Your task to perform on an android device: open app "Google Play Games" Image 0: 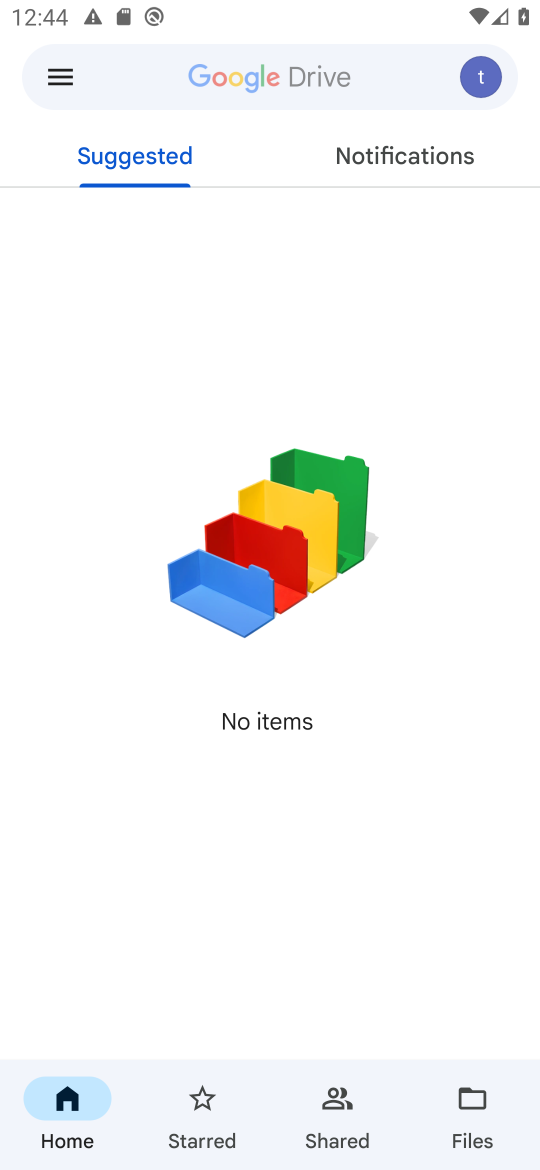
Step 0: drag from (300, 1049) to (496, 596)
Your task to perform on an android device: open app "Google Play Games" Image 1: 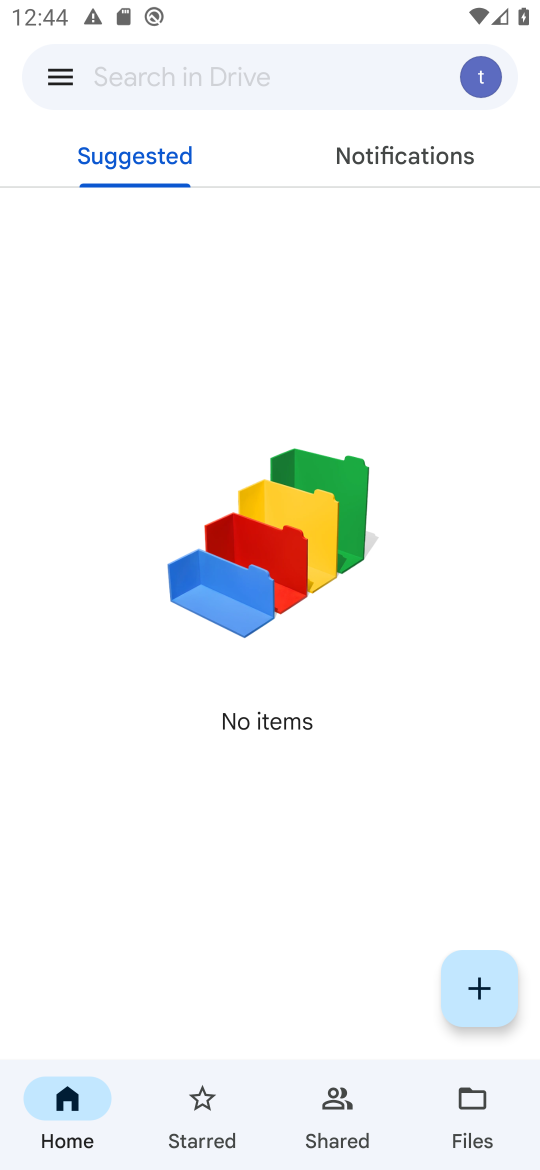
Step 1: press home button
Your task to perform on an android device: open app "Google Play Games" Image 2: 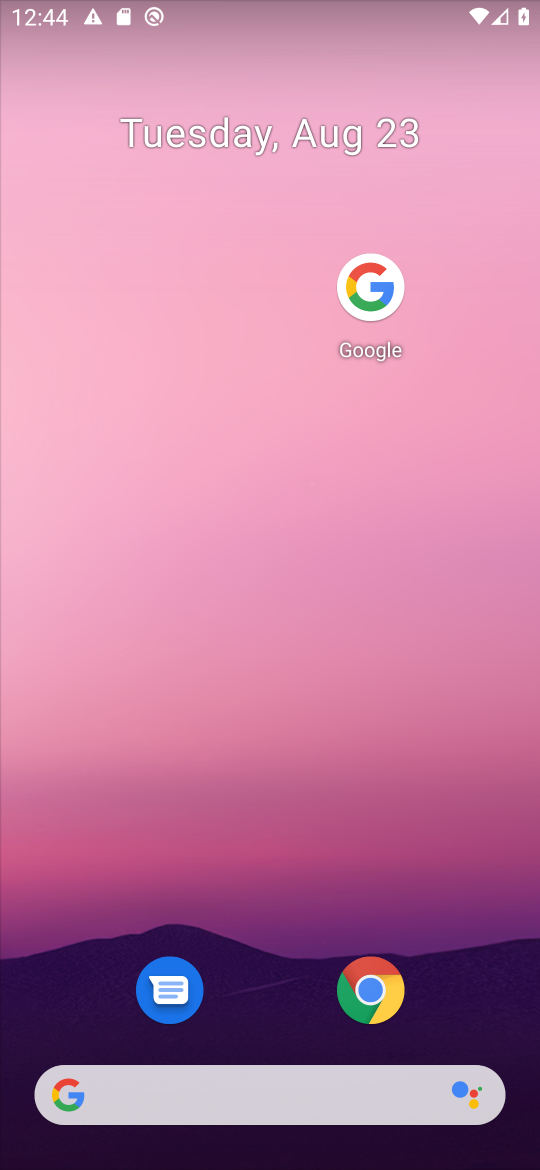
Step 2: drag from (271, 896) to (309, 276)
Your task to perform on an android device: open app "Google Play Games" Image 3: 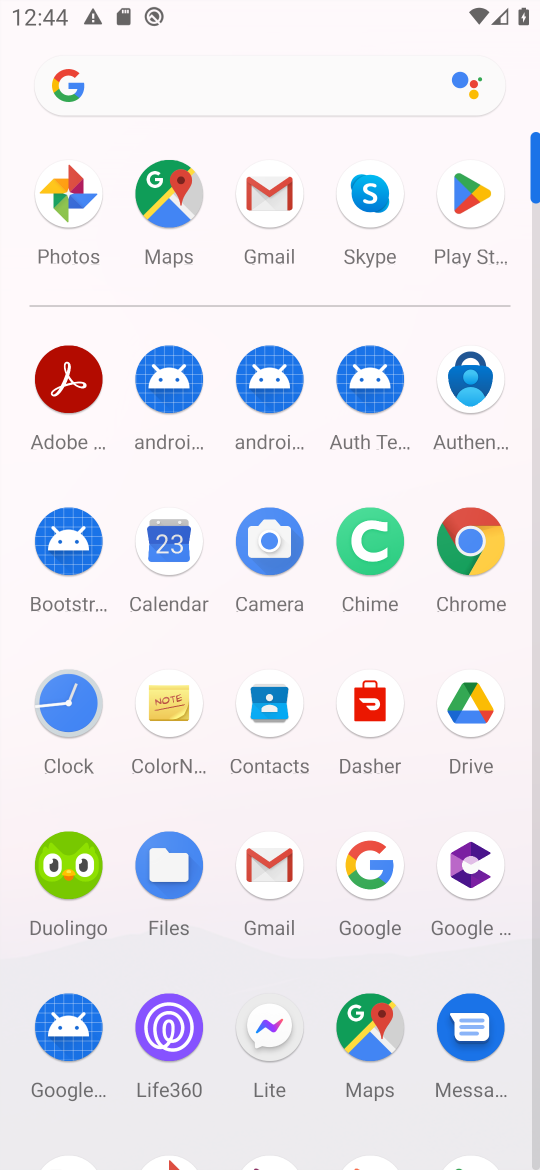
Step 3: click (468, 188)
Your task to perform on an android device: open app "Google Play Games" Image 4: 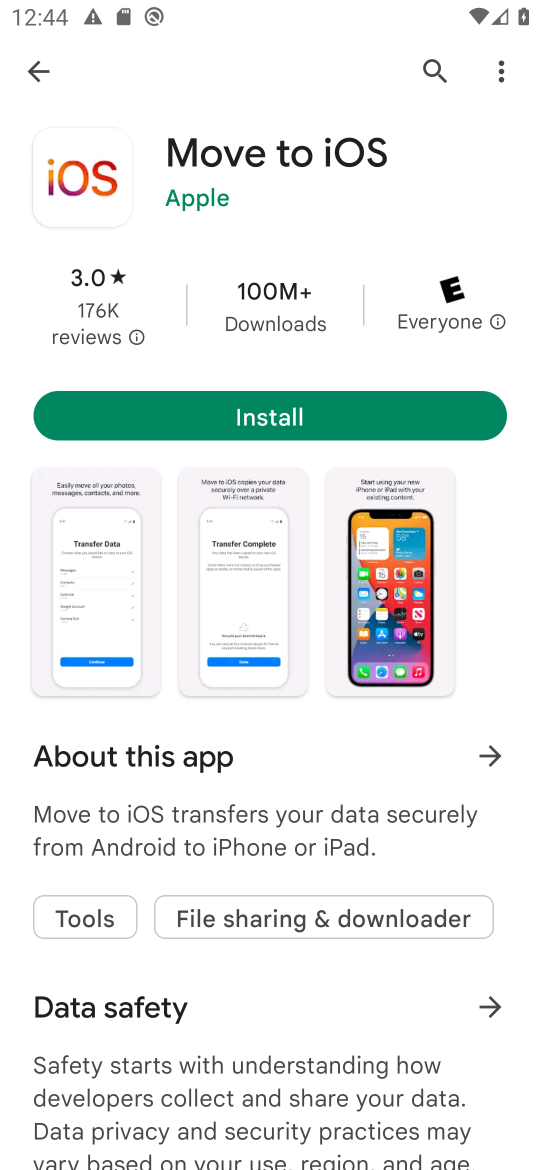
Step 4: click (29, 50)
Your task to perform on an android device: open app "Google Play Games" Image 5: 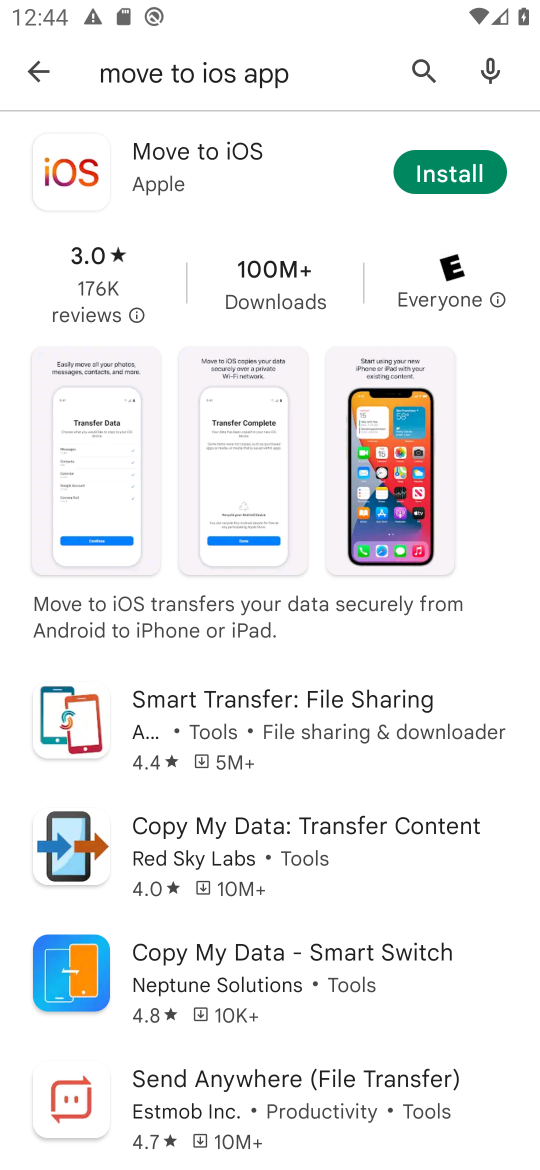
Step 5: click (27, 62)
Your task to perform on an android device: open app "Google Play Games" Image 6: 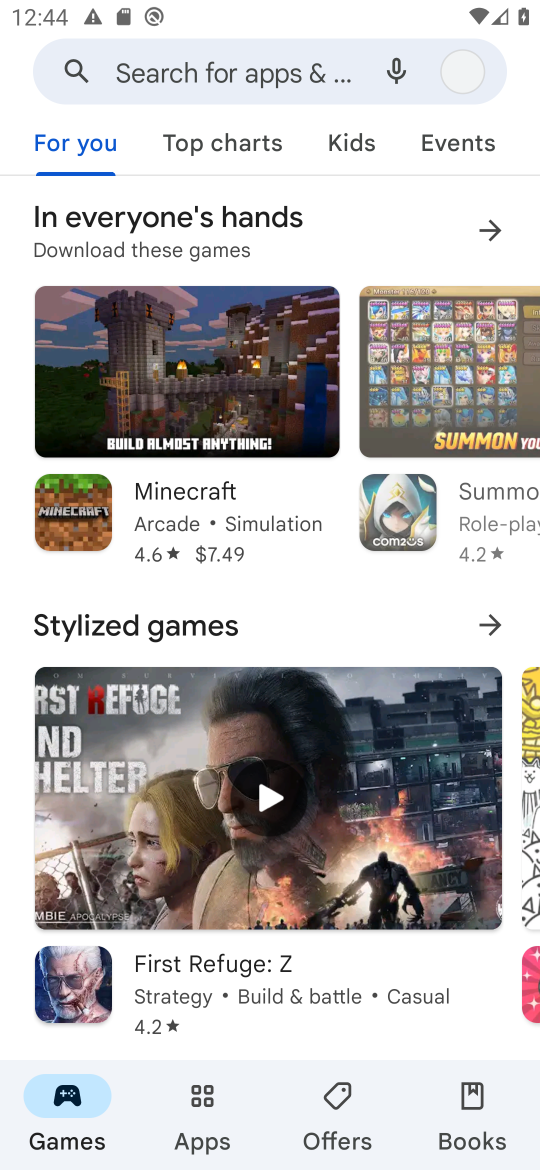
Step 6: click (174, 69)
Your task to perform on an android device: open app "Google Play Games" Image 7: 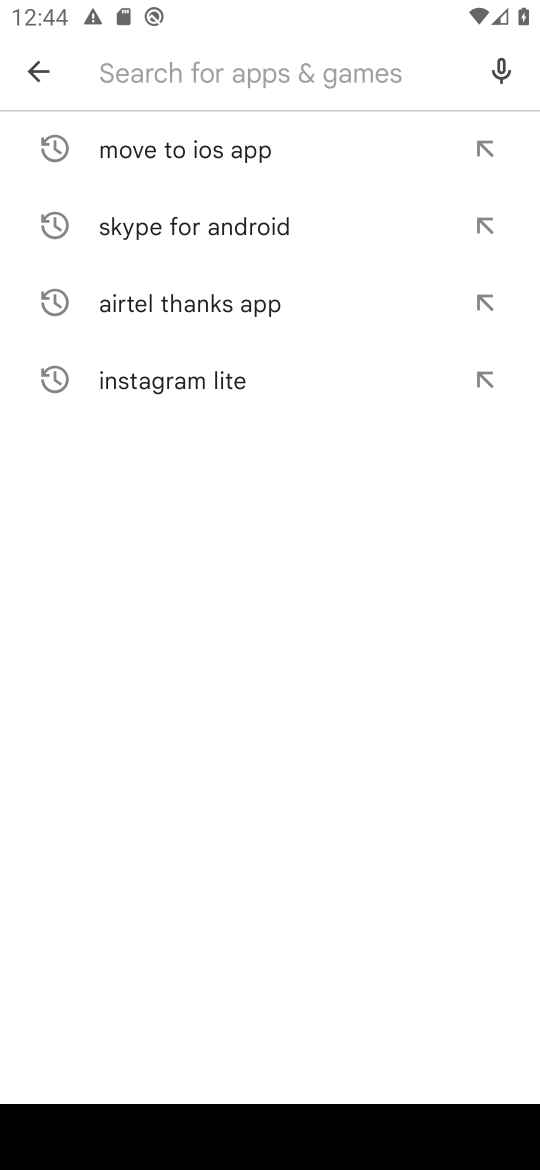
Step 7: click (242, 76)
Your task to perform on an android device: open app "Google Play Games" Image 8: 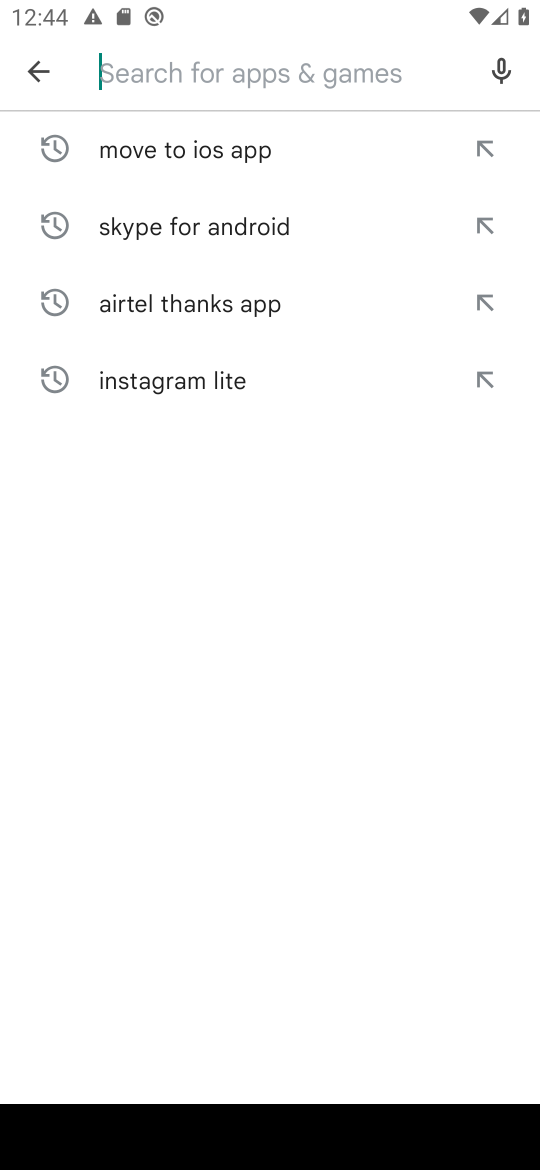
Step 8: type "Google Play Games "
Your task to perform on an android device: open app "Google Play Games" Image 9: 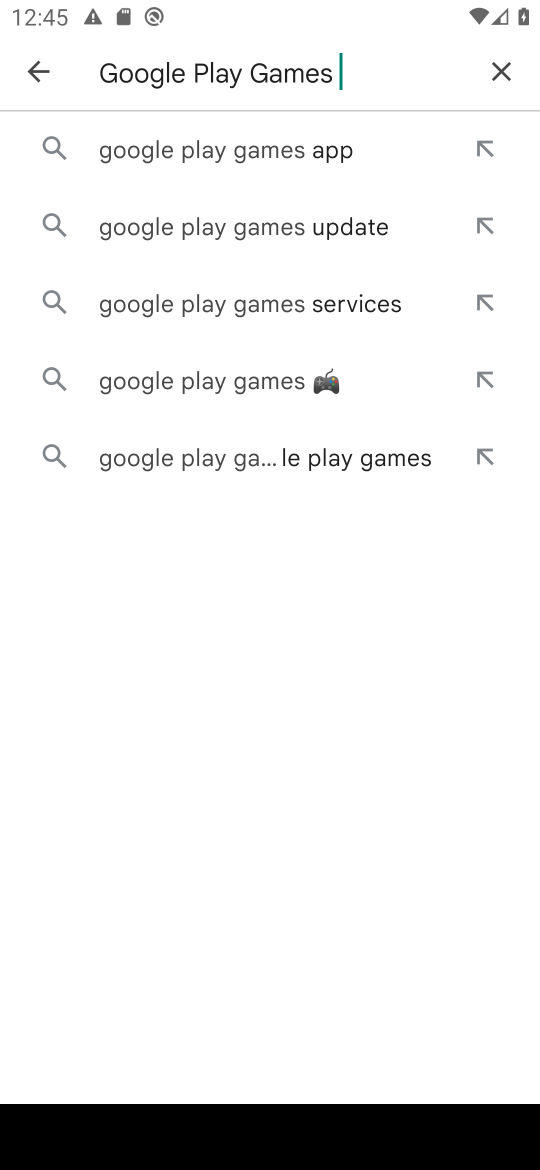
Step 9: click (233, 146)
Your task to perform on an android device: open app "Google Play Games" Image 10: 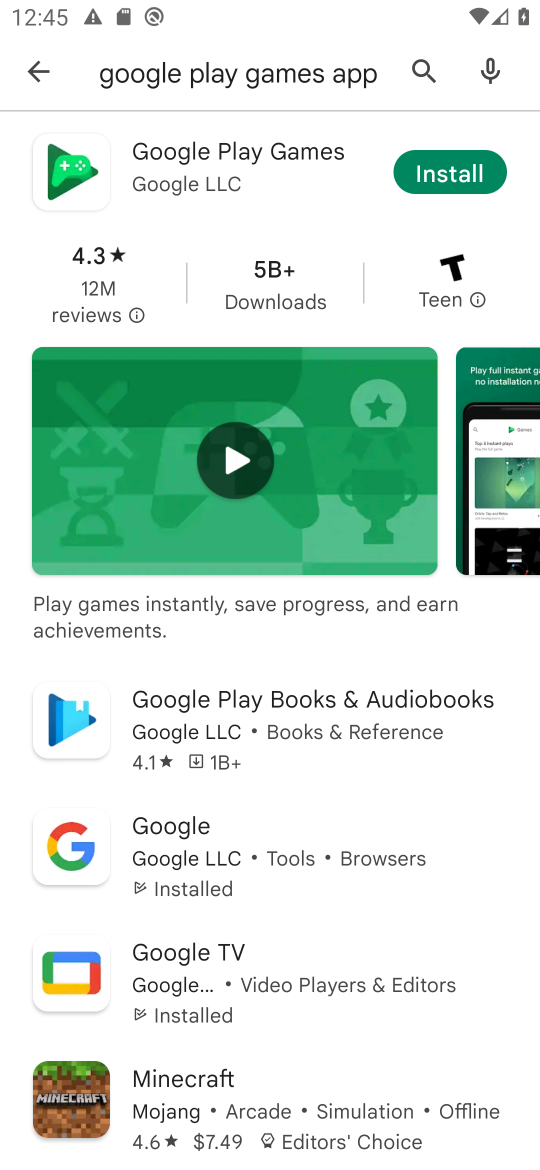
Step 10: click (470, 180)
Your task to perform on an android device: open app "Google Play Games" Image 11: 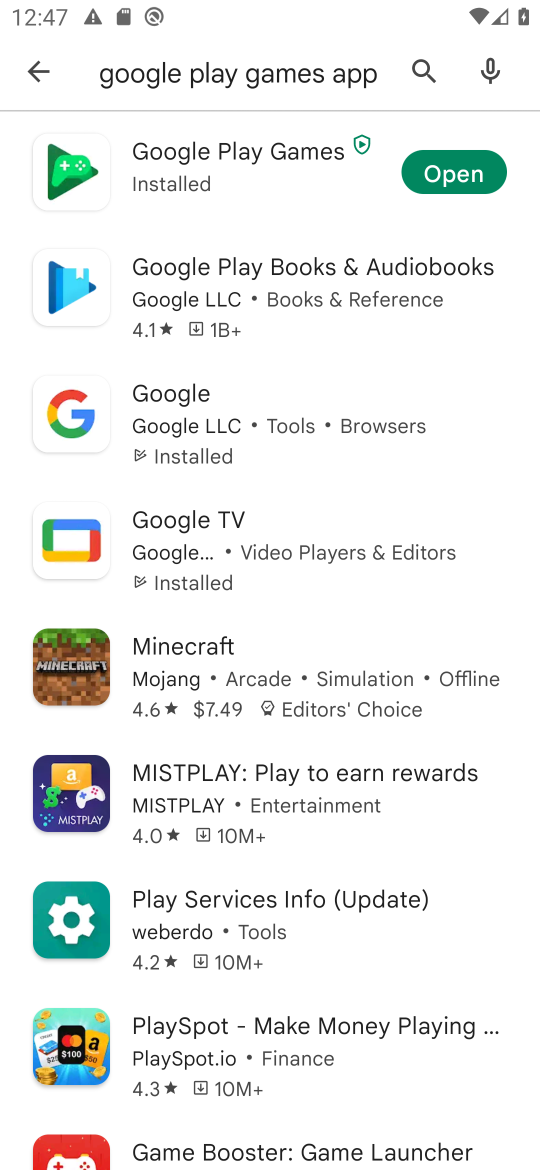
Step 11: click (465, 152)
Your task to perform on an android device: open app "Google Play Games" Image 12: 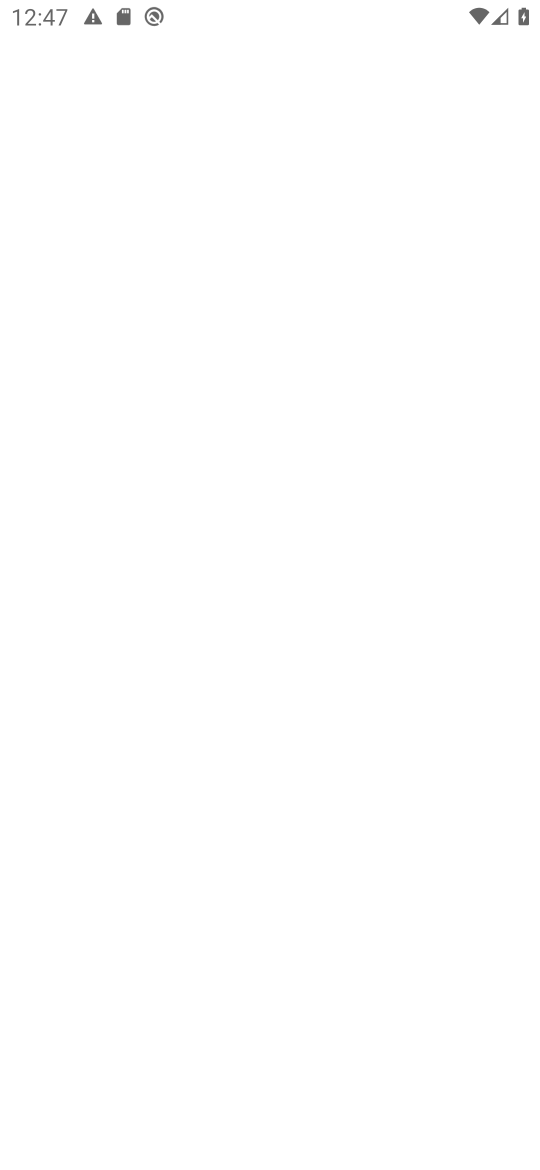
Step 12: task complete